Your task to perform on an android device: Go to eBay Image 0: 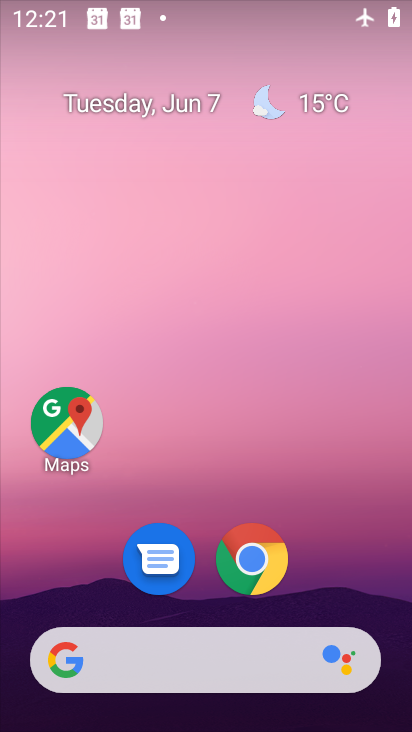
Step 0: click (249, 560)
Your task to perform on an android device: Go to eBay Image 1: 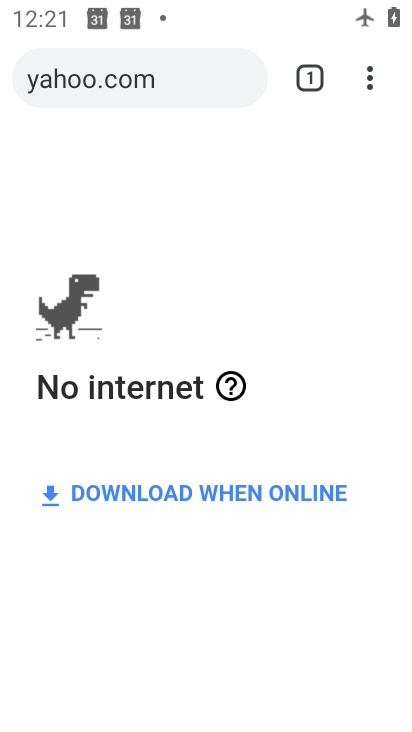
Step 1: click (189, 73)
Your task to perform on an android device: Go to eBay Image 2: 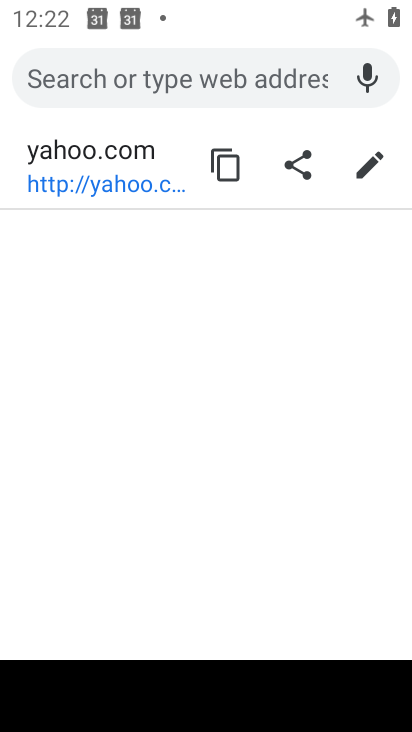
Step 2: type "ebay"
Your task to perform on an android device: Go to eBay Image 3: 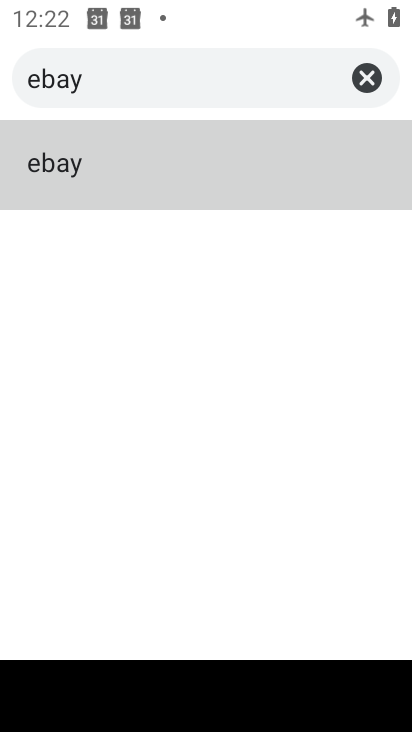
Step 3: click (45, 151)
Your task to perform on an android device: Go to eBay Image 4: 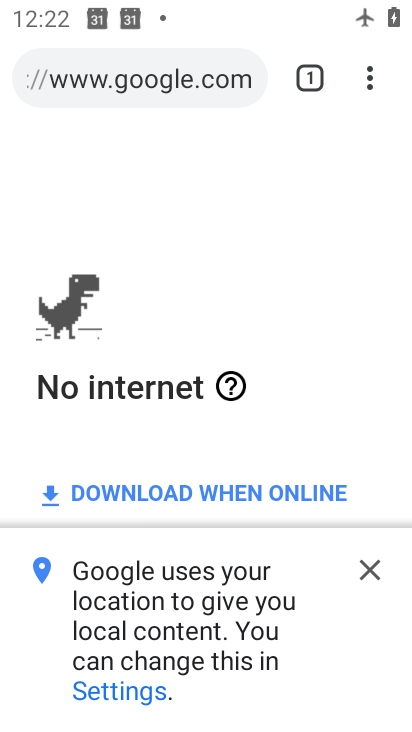
Step 4: task complete